Your task to perform on an android device: turn off airplane mode Image 0: 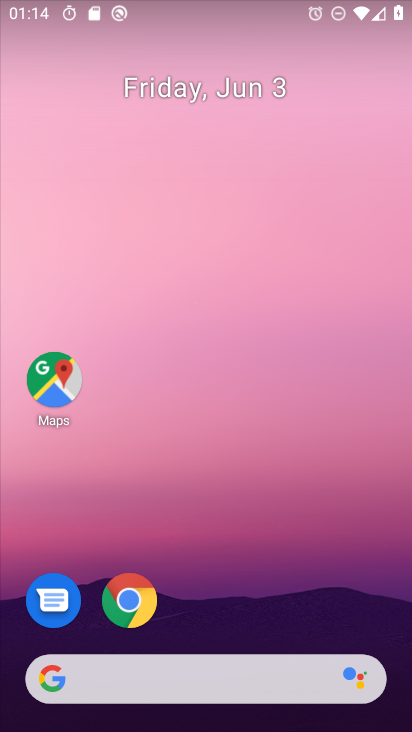
Step 0: drag from (201, 582) to (227, 71)
Your task to perform on an android device: turn off airplane mode Image 1: 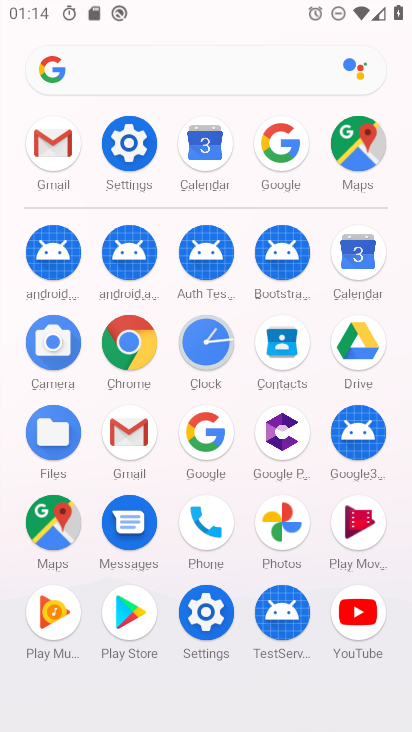
Step 1: click (129, 135)
Your task to perform on an android device: turn off airplane mode Image 2: 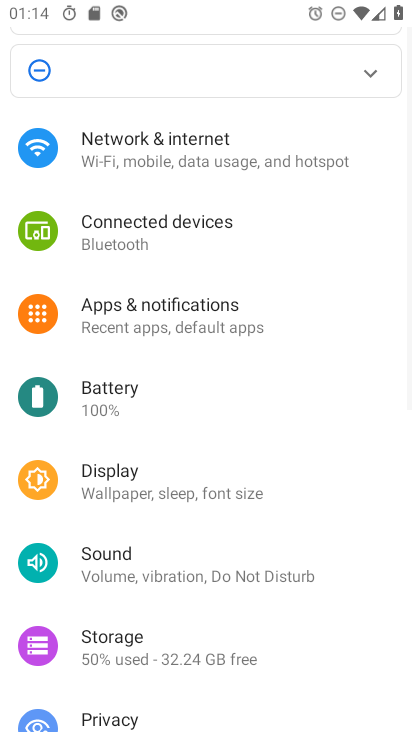
Step 2: drag from (165, 117) to (269, 566)
Your task to perform on an android device: turn off airplane mode Image 3: 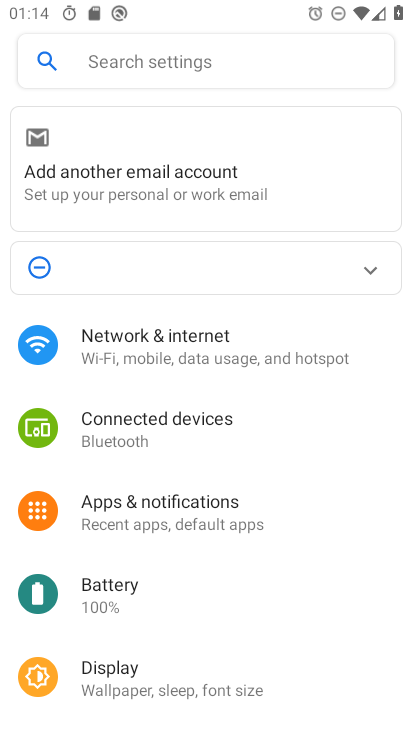
Step 3: click (200, 368)
Your task to perform on an android device: turn off airplane mode Image 4: 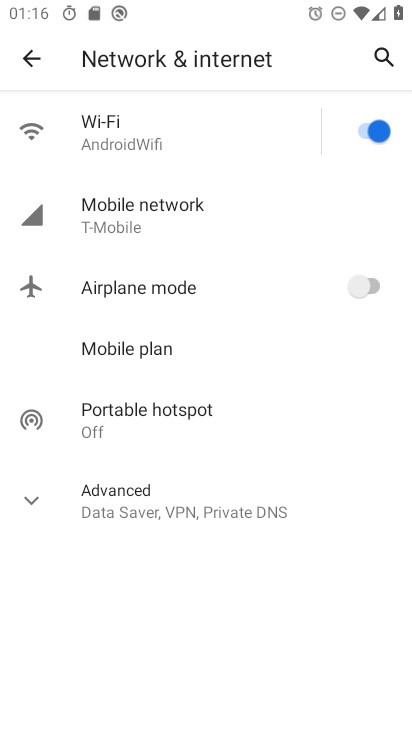
Step 4: task complete